Your task to perform on an android device: open the mobile data screen to see how much data has been used Image 0: 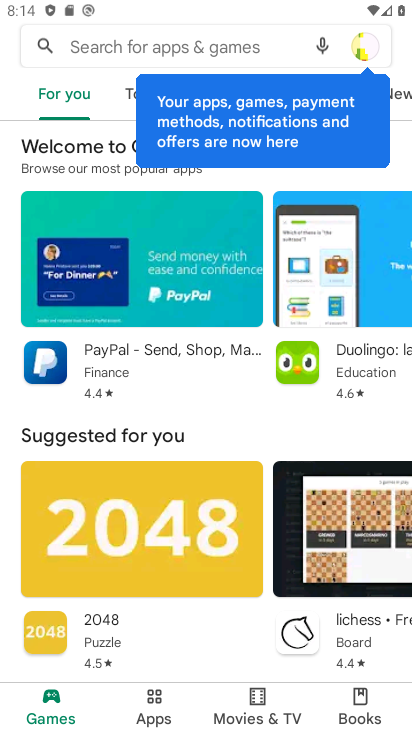
Step 0: press home button
Your task to perform on an android device: open the mobile data screen to see how much data has been used Image 1: 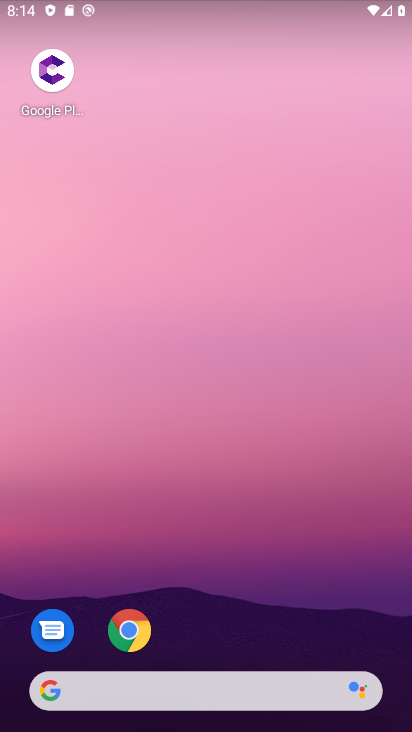
Step 1: drag from (223, 643) to (267, 131)
Your task to perform on an android device: open the mobile data screen to see how much data has been used Image 2: 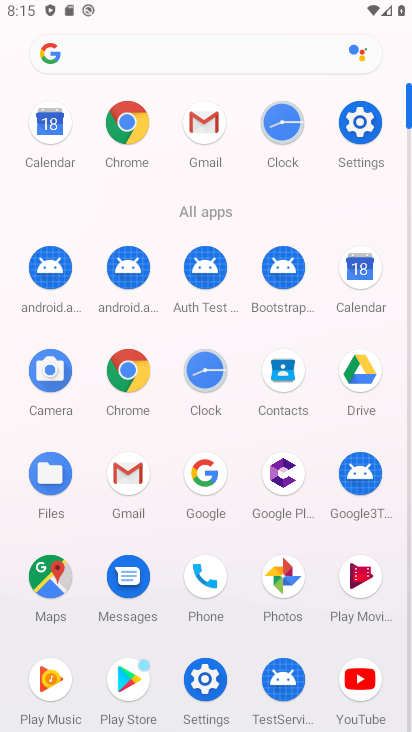
Step 2: click (365, 109)
Your task to perform on an android device: open the mobile data screen to see how much data has been used Image 3: 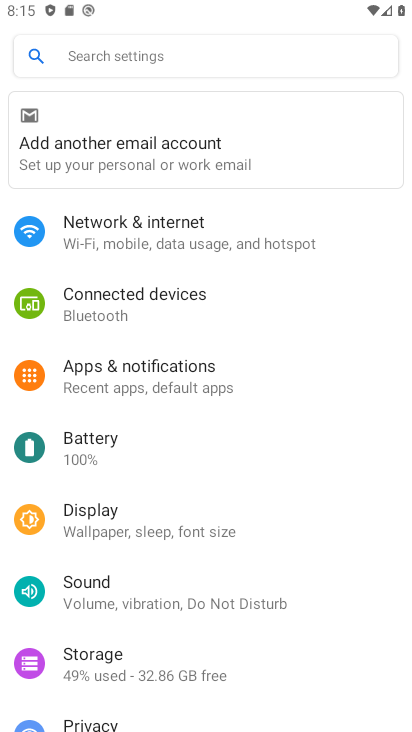
Step 3: click (182, 233)
Your task to perform on an android device: open the mobile data screen to see how much data has been used Image 4: 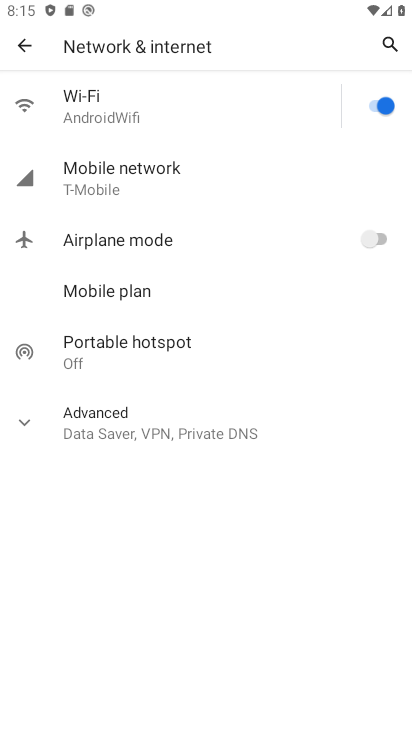
Step 4: click (140, 185)
Your task to perform on an android device: open the mobile data screen to see how much data has been used Image 5: 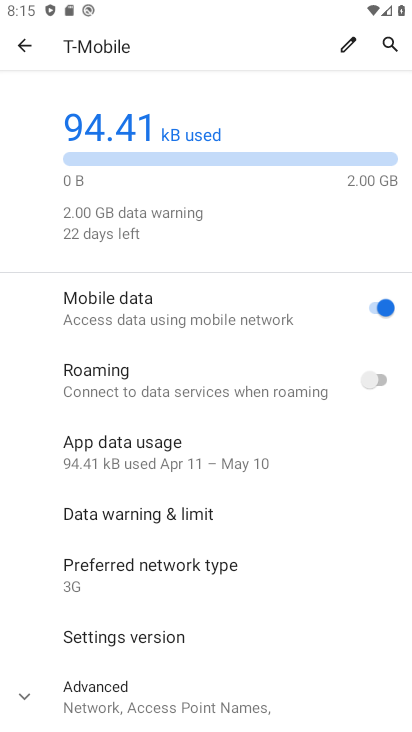
Step 5: click (141, 463)
Your task to perform on an android device: open the mobile data screen to see how much data has been used Image 6: 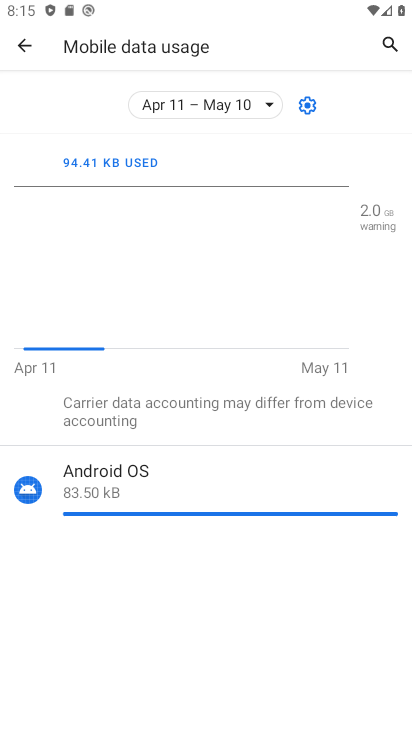
Step 6: task complete